Your task to perform on an android device: Open privacy settings Image 0: 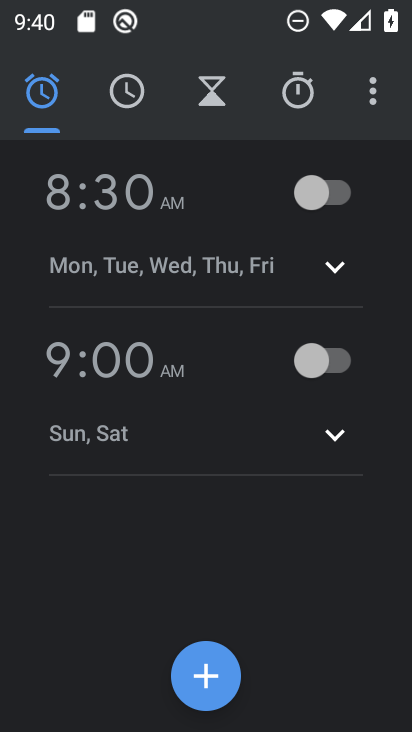
Step 0: press home button
Your task to perform on an android device: Open privacy settings Image 1: 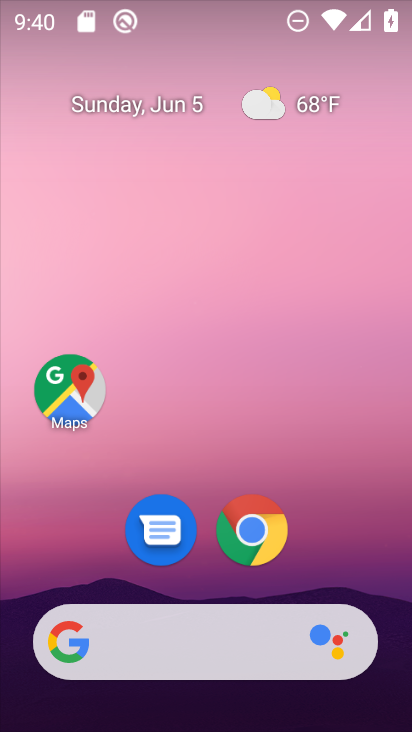
Step 1: drag from (392, 625) to (331, 151)
Your task to perform on an android device: Open privacy settings Image 2: 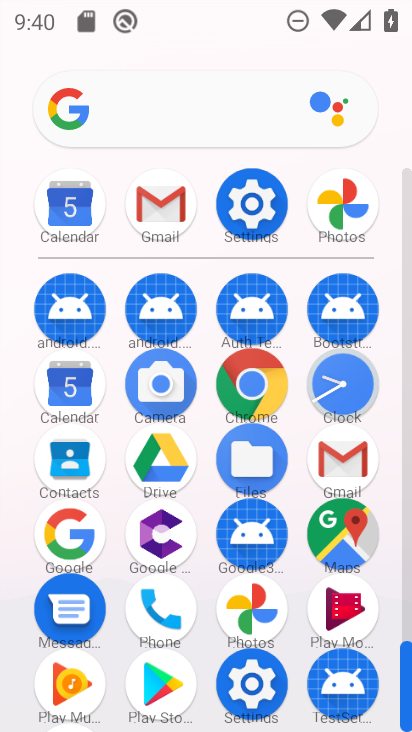
Step 2: drag from (407, 604) to (401, 542)
Your task to perform on an android device: Open privacy settings Image 3: 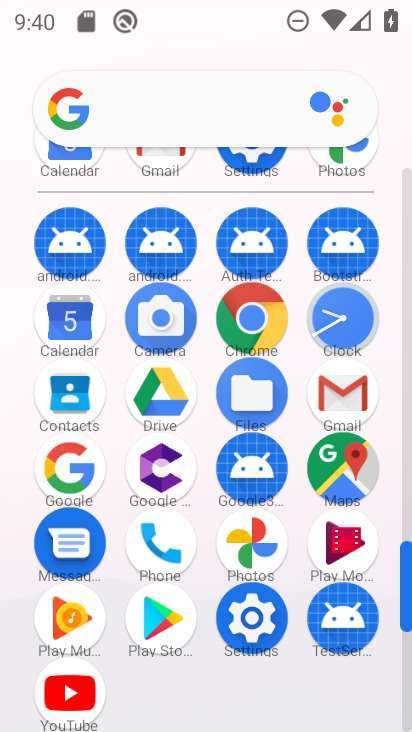
Step 3: click (251, 615)
Your task to perform on an android device: Open privacy settings Image 4: 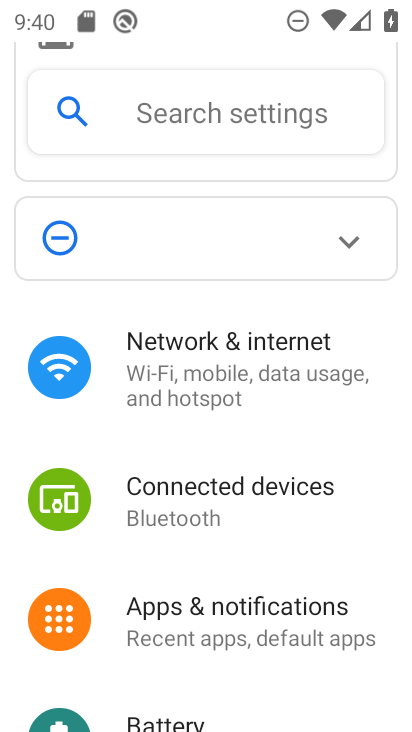
Step 4: drag from (375, 632) to (301, 114)
Your task to perform on an android device: Open privacy settings Image 5: 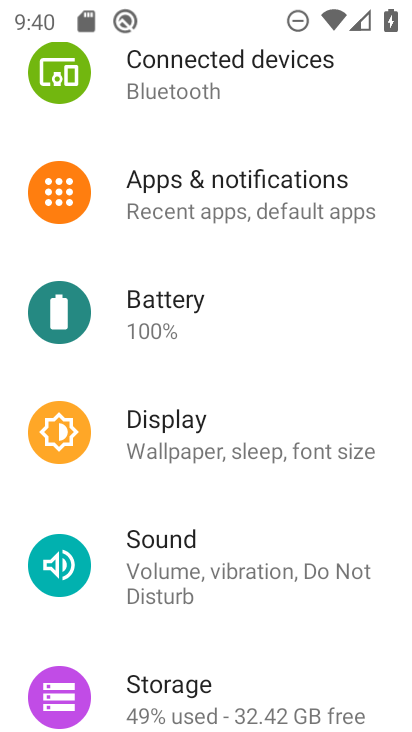
Step 5: drag from (346, 584) to (263, 79)
Your task to perform on an android device: Open privacy settings Image 6: 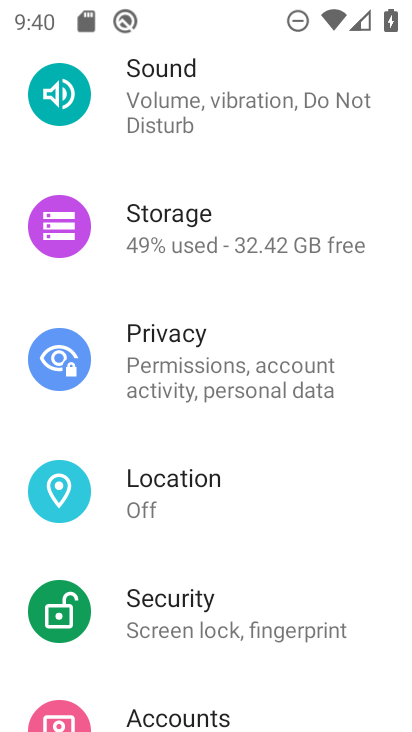
Step 6: click (203, 362)
Your task to perform on an android device: Open privacy settings Image 7: 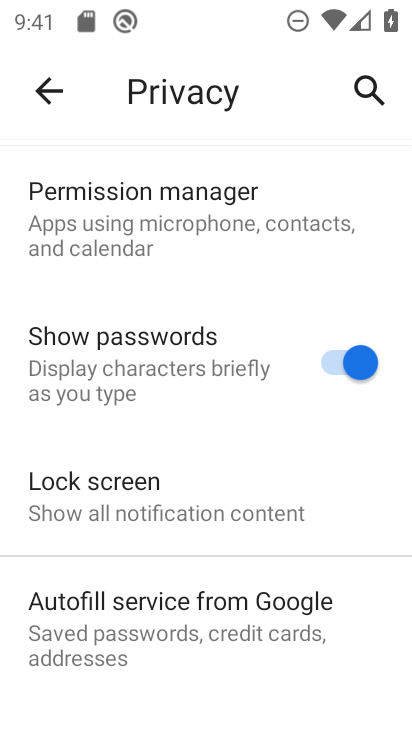
Step 7: drag from (332, 599) to (265, 186)
Your task to perform on an android device: Open privacy settings Image 8: 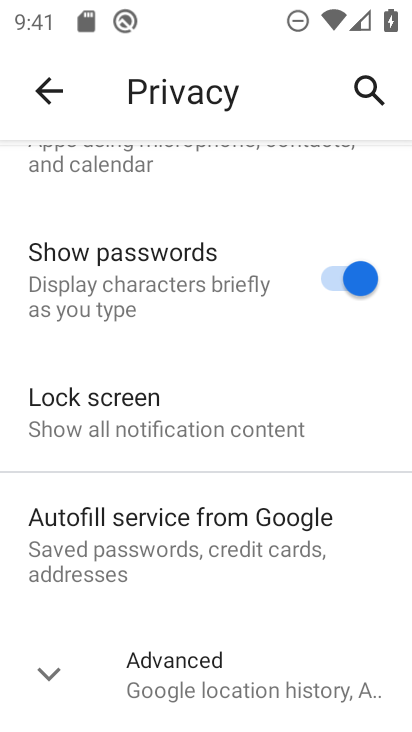
Step 8: click (44, 673)
Your task to perform on an android device: Open privacy settings Image 9: 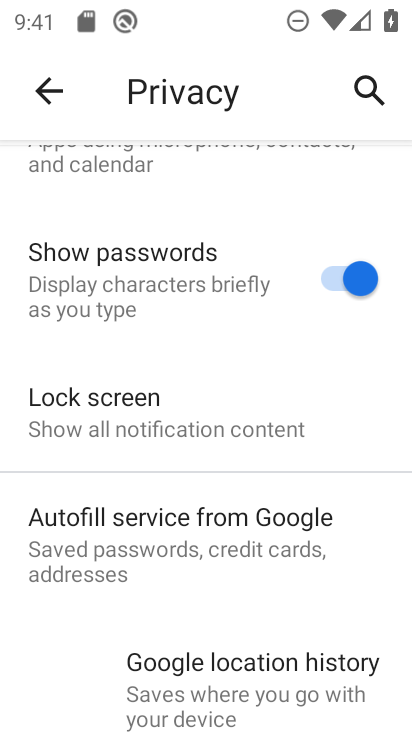
Step 9: task complete